Your task to perform on an android device: open wifi settings Image 0: 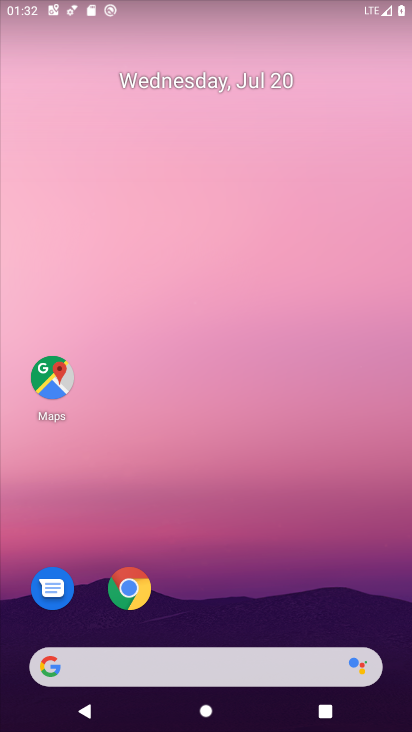
Step 0: drag from (233, 581) to (209, 170)
Your task to perform on an android device: open wifi settings Image 1: 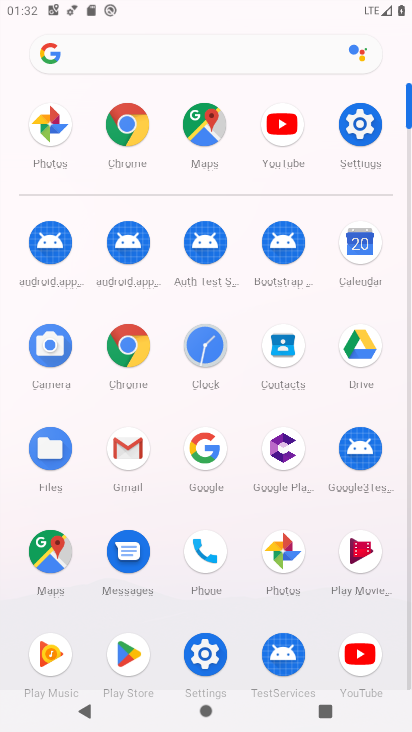
Step 1: click (367, 127)
Your task to perform on an android device: open wifi settings Image 2: 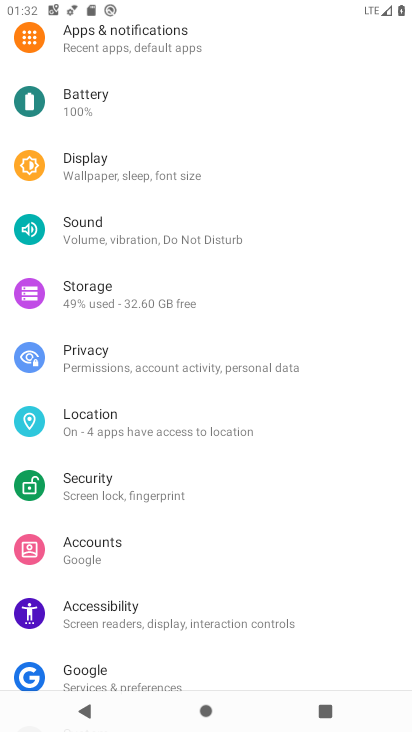
Step 2: drag from (144, 84) to (173, 540)
Your task to perform on an android device: open wifi settings Image 3: 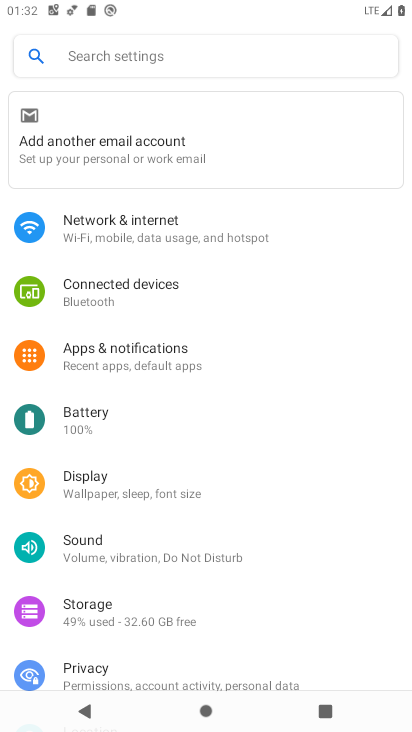
Step 3: click (124, 214)
Your task to perform on an android device: open wifi settings Image 4: 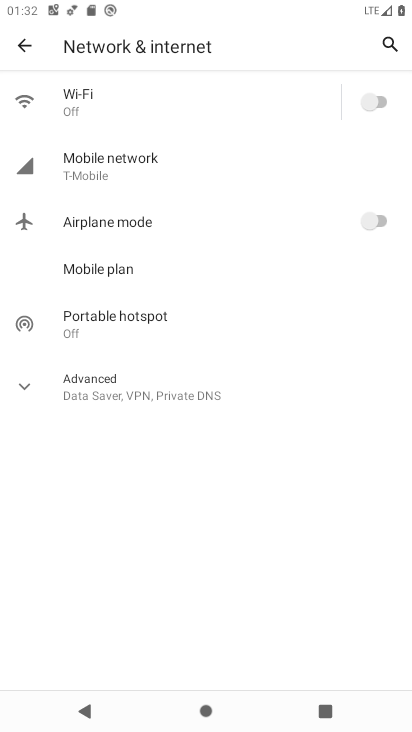
Step 4: click (157, 116)
Your task to perform on an android device: open wifi settings Image 5: 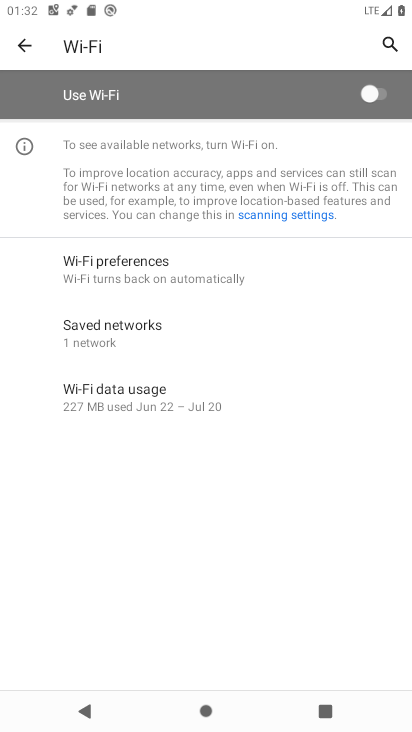
Step 5: task complete